Your task to perform on an android device: change timer sound Image 0: 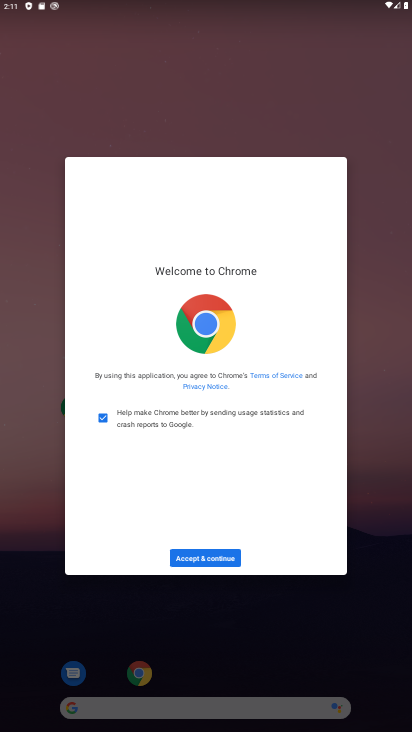
Step 0: press home button
Your task to perform on an android device: change timer sound Image 1: 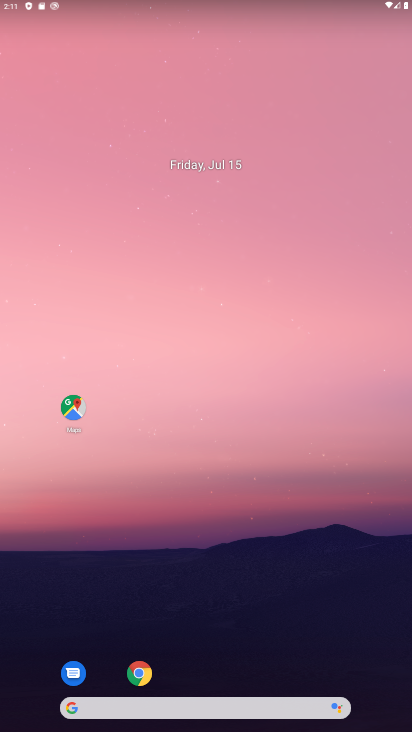
Step 1: drag from (187, 579) to (187, 242)
Your task to perform on an android device: change timer sound Image 2: 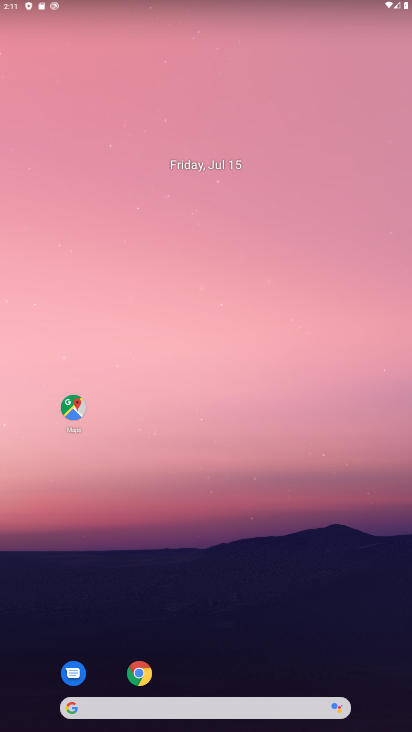
Step 2: drag from (207, 612) to (210, 134)
Your task to perform on an android device: change timer sound Image 3: 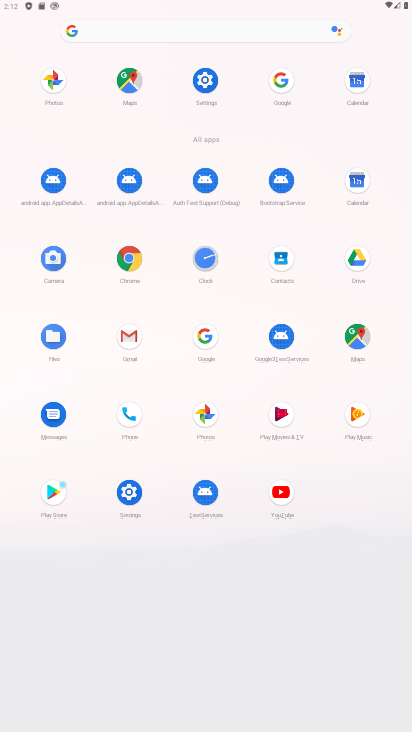
Step 3: click (204, 257)
Your task to perform on an android device: change timer sound Image 4: 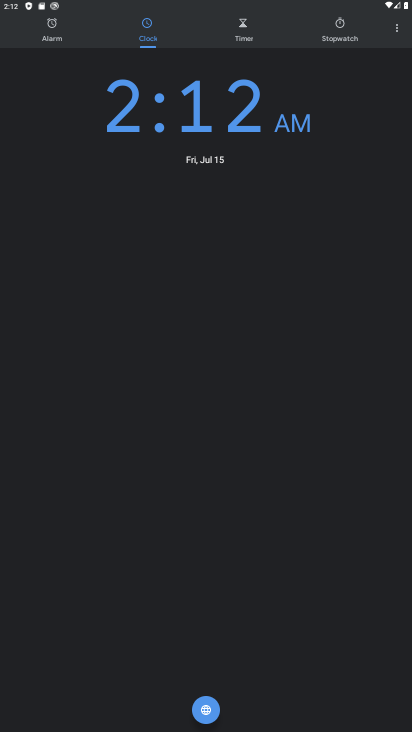
Step 4: click (397, 32)
Your task to perform on an android device: change timer sound Image 5: 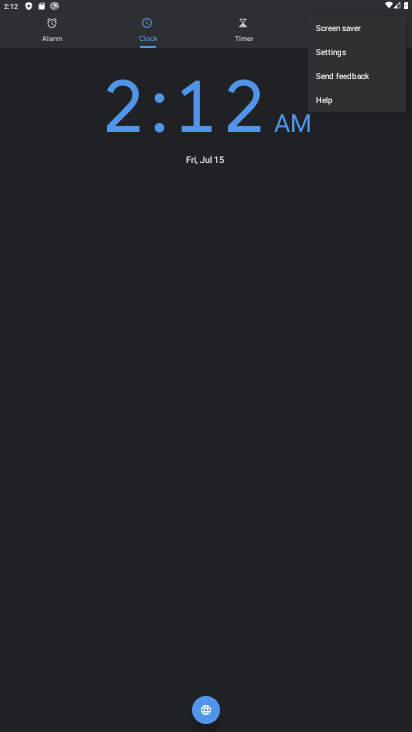
Step 5: click (332, 58)
Your task to perform on an android device: change timer sound Image 6: 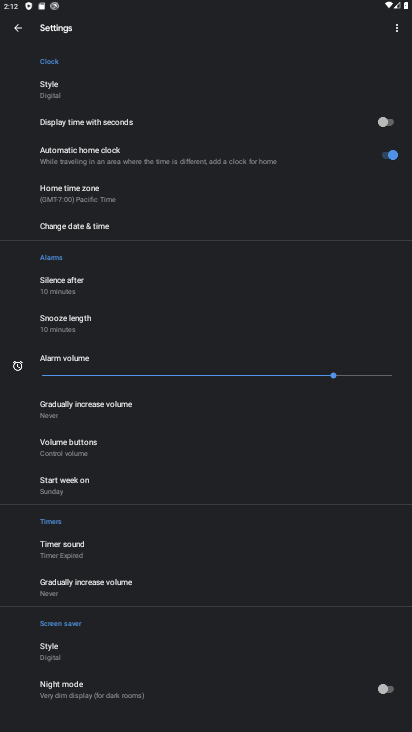
Step 6: click (64, 549)
Your task to perform on an android device: change timer sound Image 7: 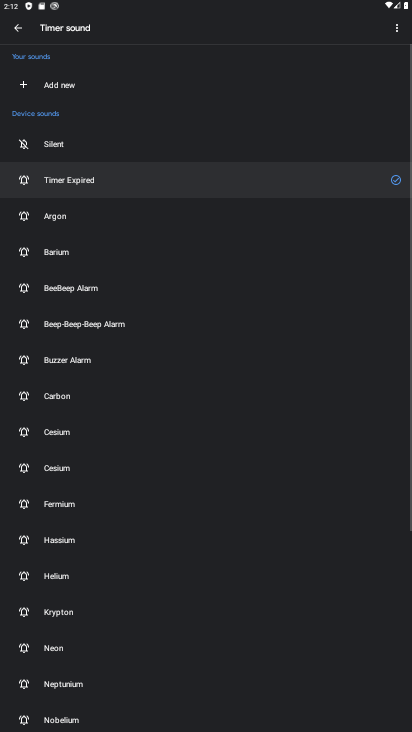
Step 7: click (59, 254)
Your task to perform on an android device: change timer sound Image 8: 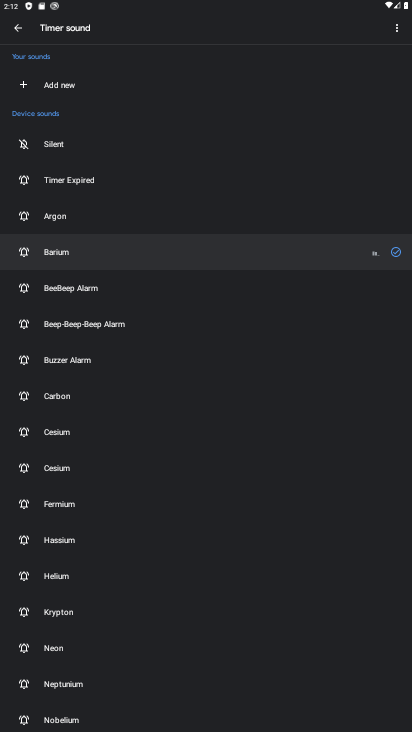
Step 8: task complete